Your task to perform on an android device: Open Google Maps Image 0: 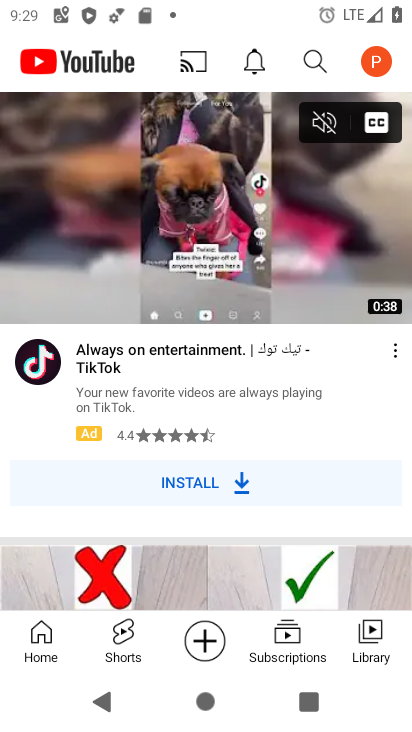
Step 0: press home button
Your task to perform on an android device: Open Google Maps Image 1: 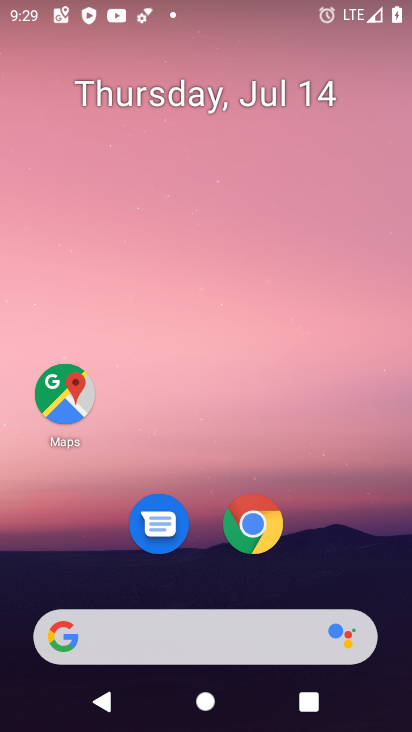
Step 1: click (76, 397)
Your task to perform on an android device: Open Google Maps Image 2: 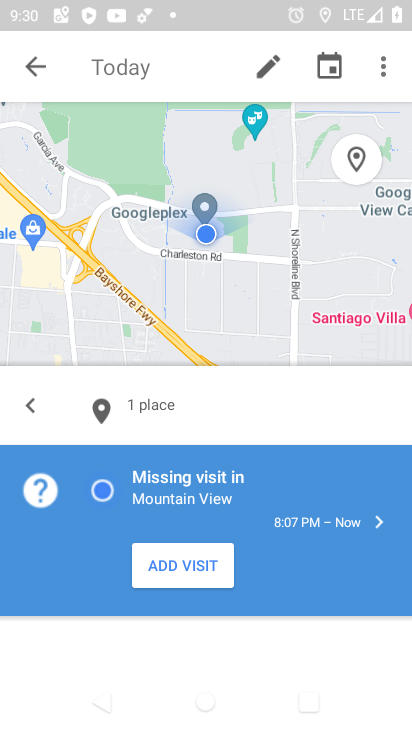
Step 2: click (32, 66)
Your task to perform on an android device: Open Google Maps Image 3: 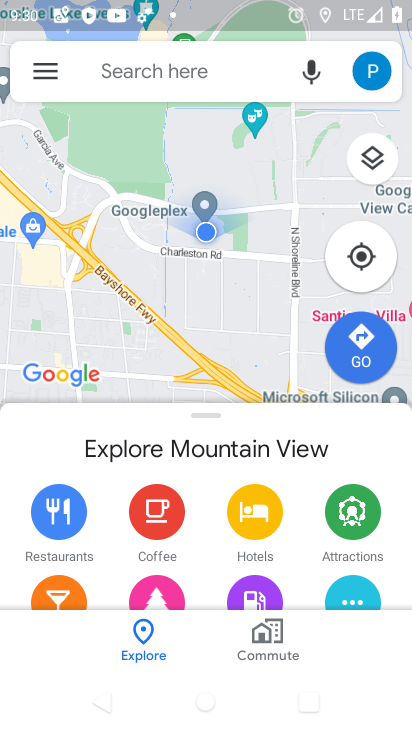
Step 3: task complete